Your task to perform on an android device: Open settings Image 0: 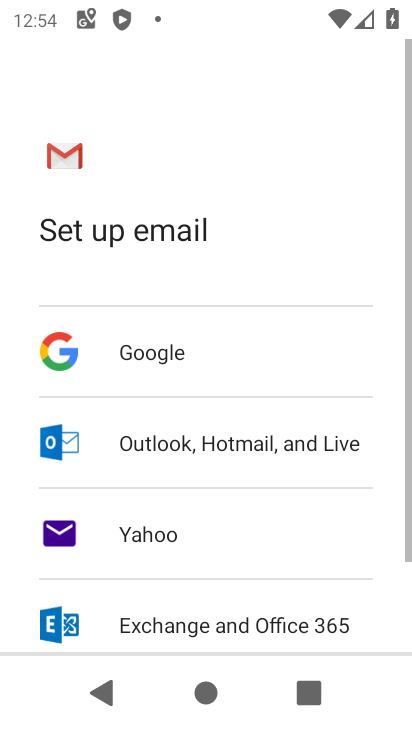
Step 0: press home button
Your task to perform on an android device: Open settings Image 1: 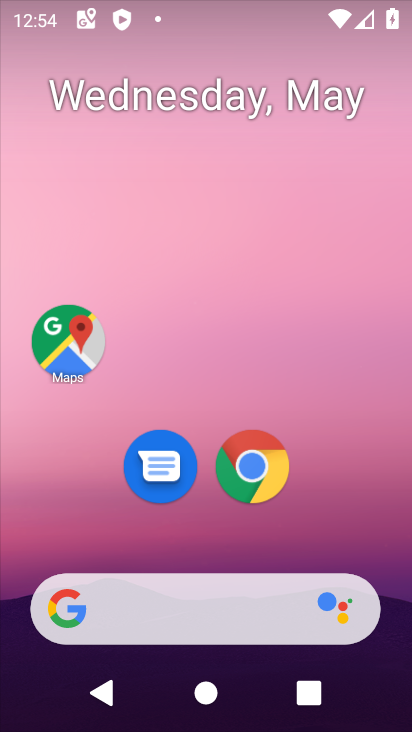
Step 1: drag from (212, 539) to (233, 92)
Your task to perform on an android device: Open settings Image 2: 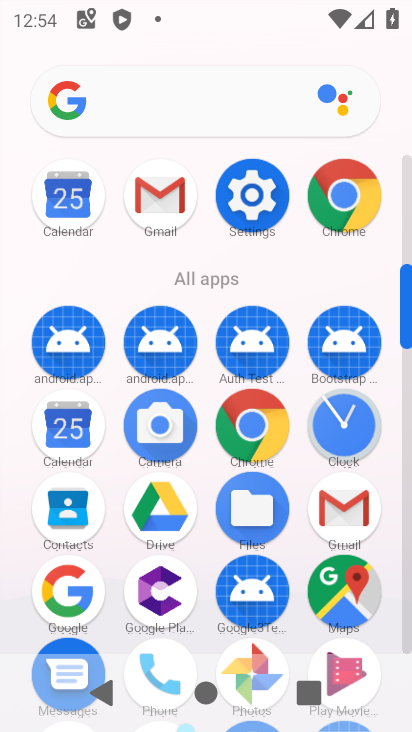
Step 2: click (249, 187)
Your task to perform on an android device: Open settings Image 3: 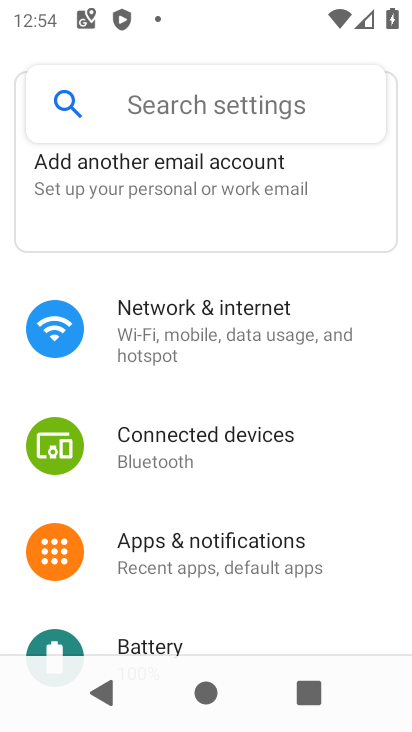
Step 3: task complete